Your task to perform on an android device: Open battery settings Image 0: 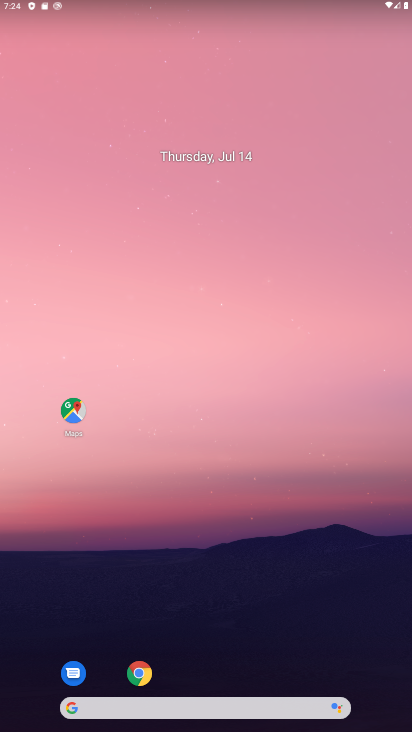
Step 0: drag from (345, 624) to (383, 192)
Your task to perform on an android device: Open battery settings Image 1: 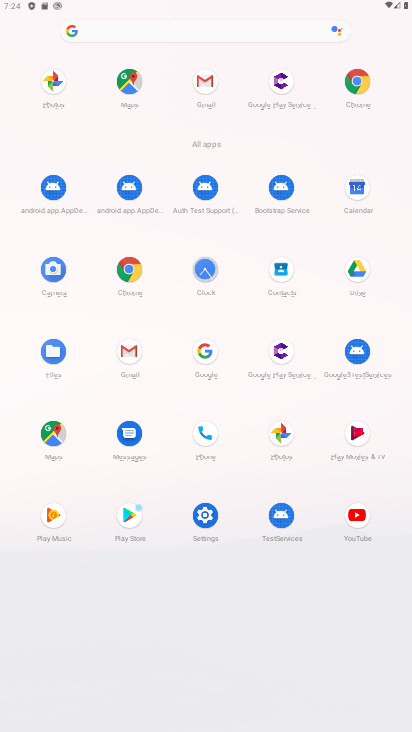
Step 1: click (206, 510)
Your task to perform on an android device: Open battery settings Image 2: 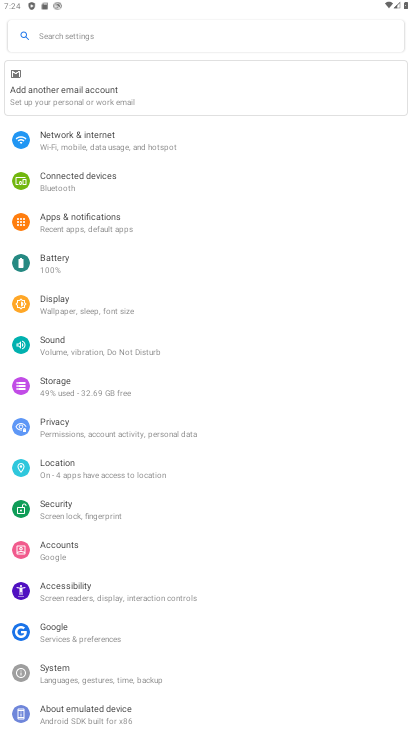
Step 2: drag from (287, 538) to (299, 356)
Your task to perform on an android device: Open battery settings Image 3: 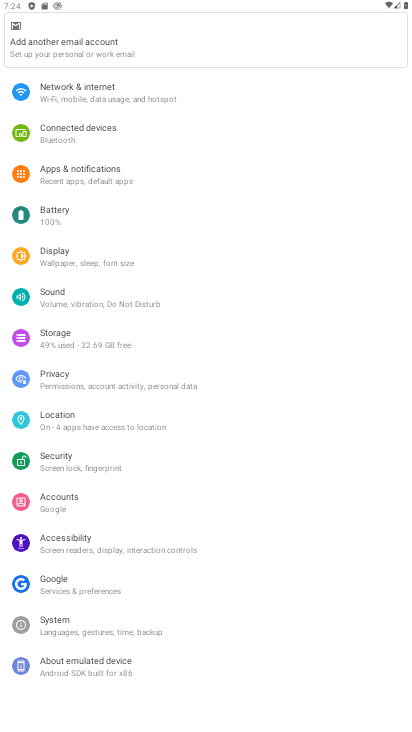
Step 3: drag from (300, 300) to (289, 381)
Your task to perform on an android device: Open battery settings Image 4: 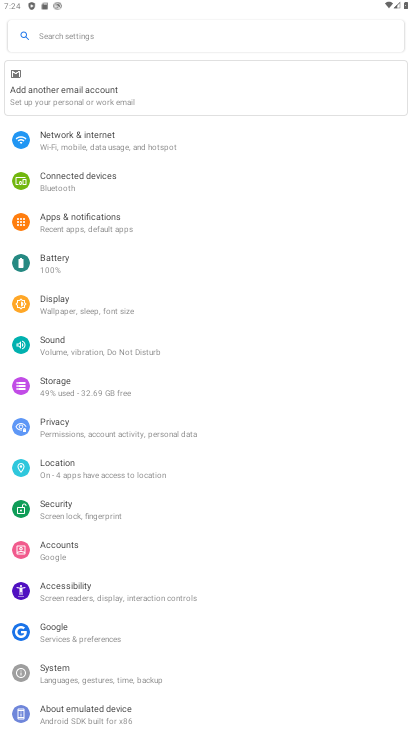
Step 4: drag from (295, 255) to (284, 370)
Your task to perform on an android device: Open battery settings Image 5: 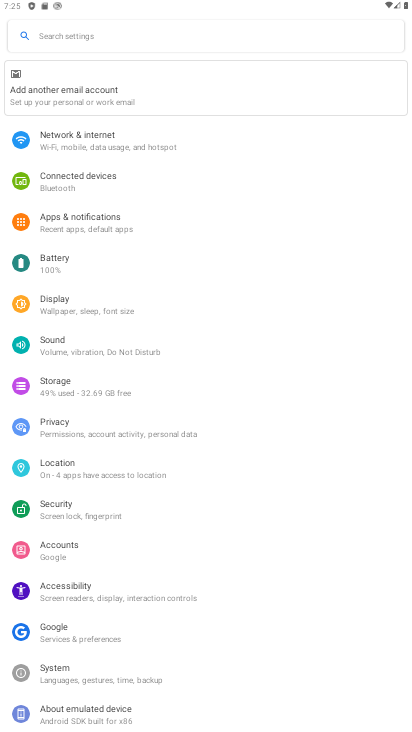
Step 5: click (111, 254)
Your task to perform on an android device: Open battery settings Image 6: 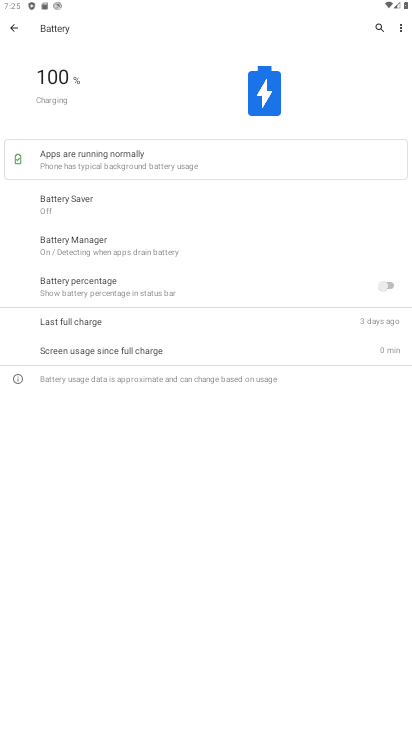
Step 6: task complete